Your task to perform on an android device: open sync settings in chrome Image 0: 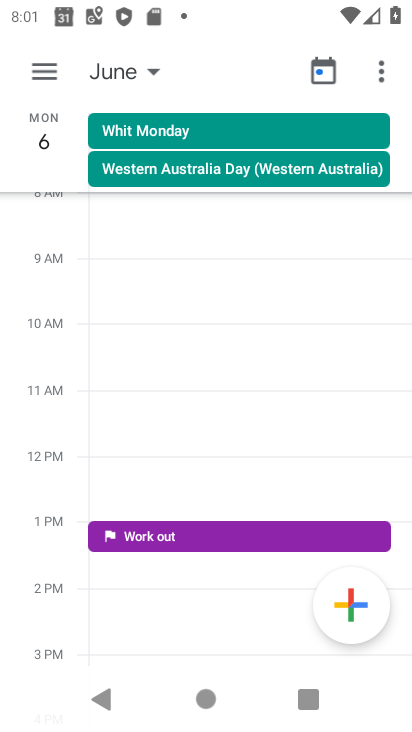
Step 0: press home button
Your task to perform on an android device: open sync settings in chrome Image 1: 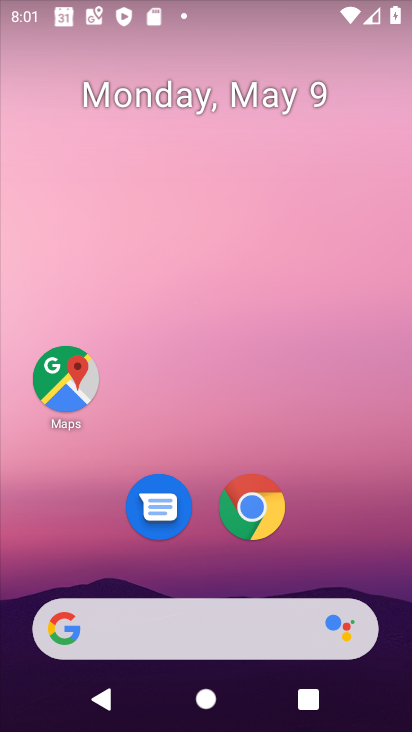
Step 1: drag from (248, 650) to (305, 115)
Your task to perform on an android device: open sync settings in chrome Image 2: 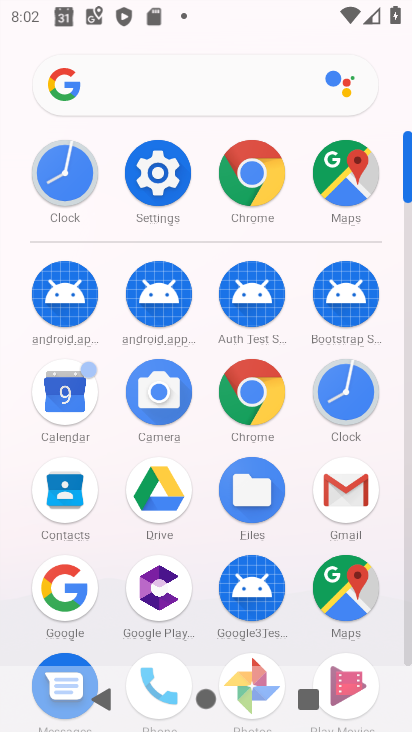
Step 2: click (247, 182)
Your task to perform on an android device: open sync settings in chrome Image 3: 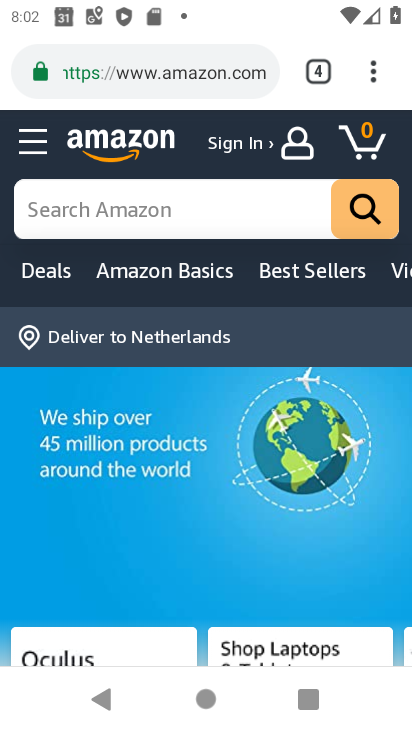
Step 3: click (364, 93)
Your task to perform on an android device: open sync settings in chrome Image 4: 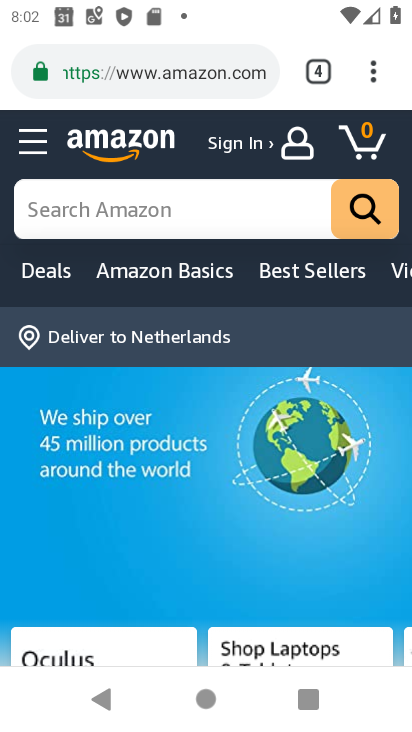
Step 4: click (367, 92)
Your task to perform on an android device: open sync settings in chrome Image 5: 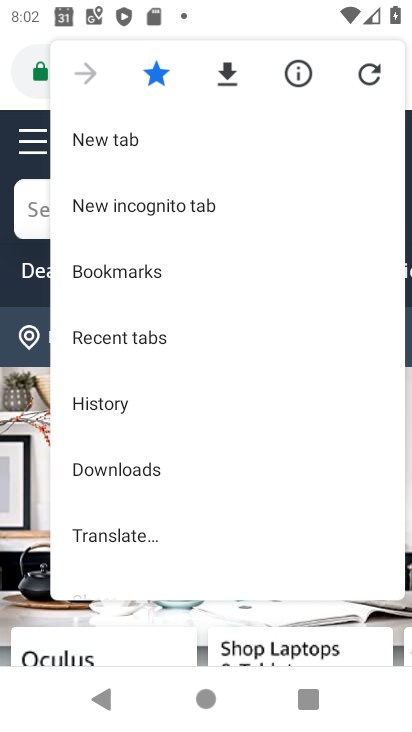
Step 5: drag from (188, 478) to (189, 236)
Your task to perform on an android device: open sync settings in chrome Image 6: 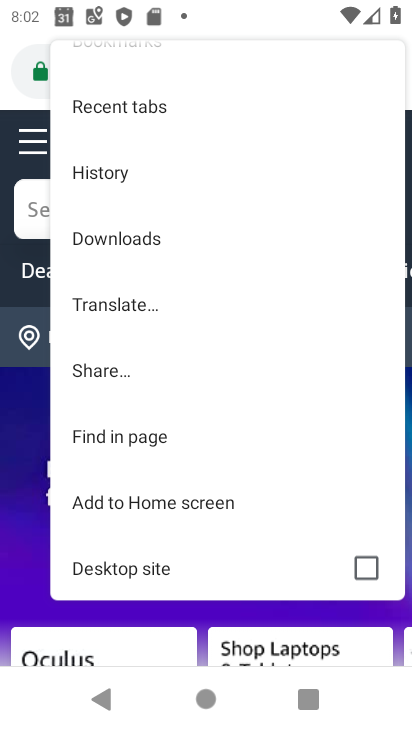
Step 6: drag from (167, 497) to (185, 311)
Your task to perform on an android device: open sync settings in chrome Image 7: 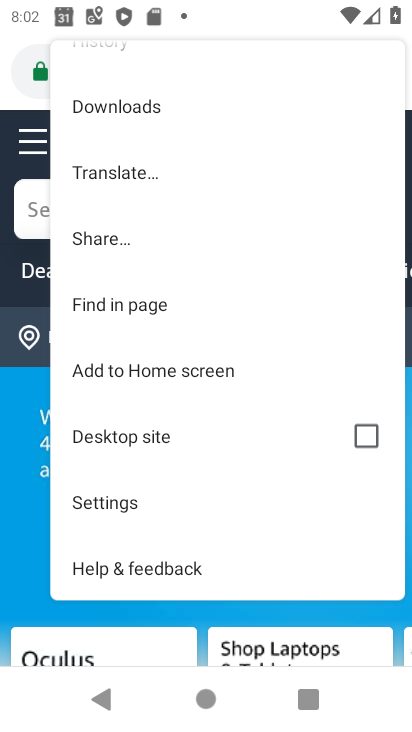
Step 7: click (137, 511)
Your task to perform on an android device: open sync settings in chrome Image 8: 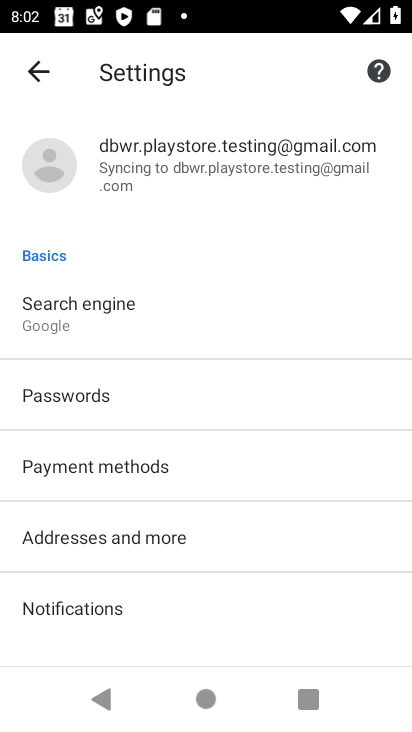
Step 8: drag from (107, 561) to (145, 319)
Your task to perform on an android device: open sync settings in chrome Image 9: 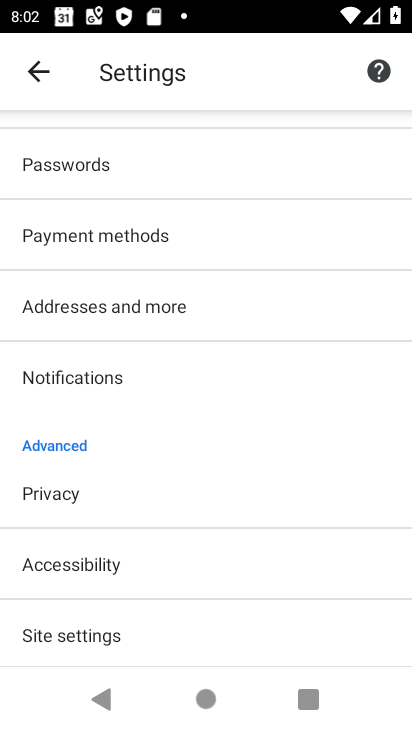
Step 9: click (81, 623)
Your task to perform on an android device: open sync settings in chrome Image 10: 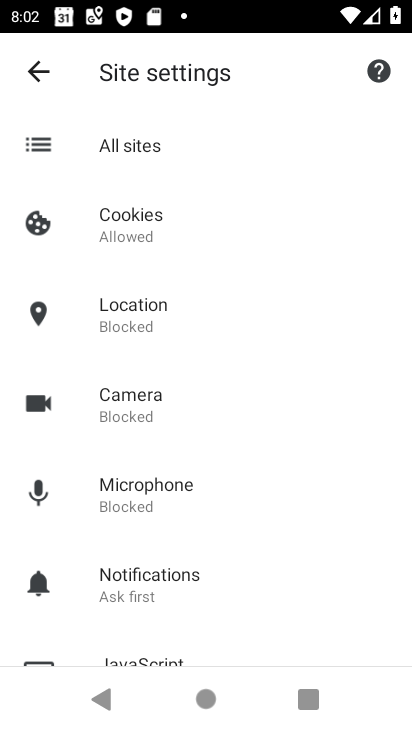
Step 10: drag from (199, 540) to (231, 354)
Your task to perform on an android device: open sync settings in chrome Image 11: 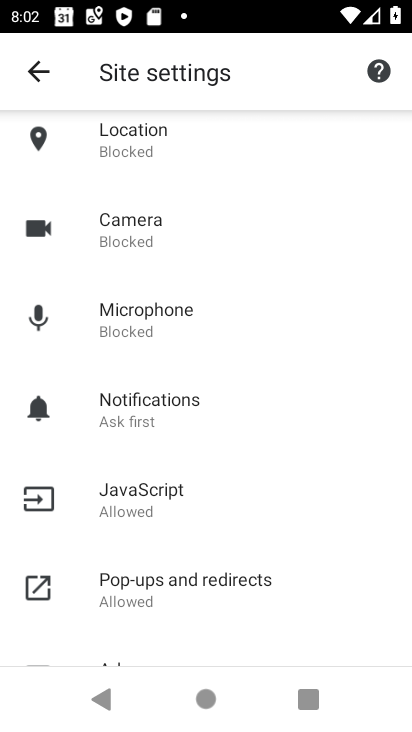
Step 11: drag from (149, 595) to (176, 211)
Your task to perform on an android device: open sync settings in chrome Image 12: 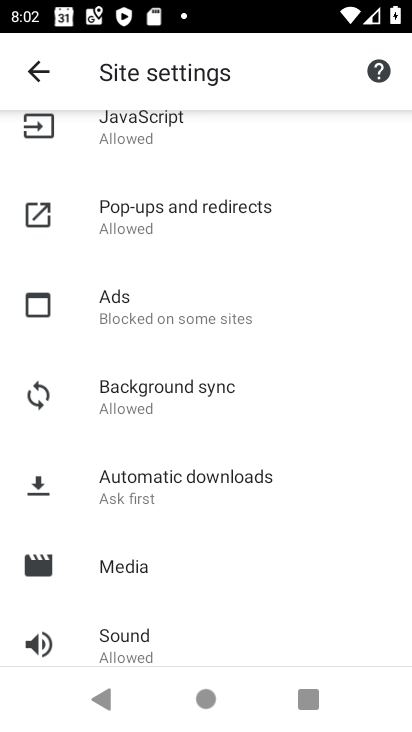
Step 12: drag from (126, 603) to (237, 387)
Your task to perform on an android device: open sync settings in chrome Image 13: 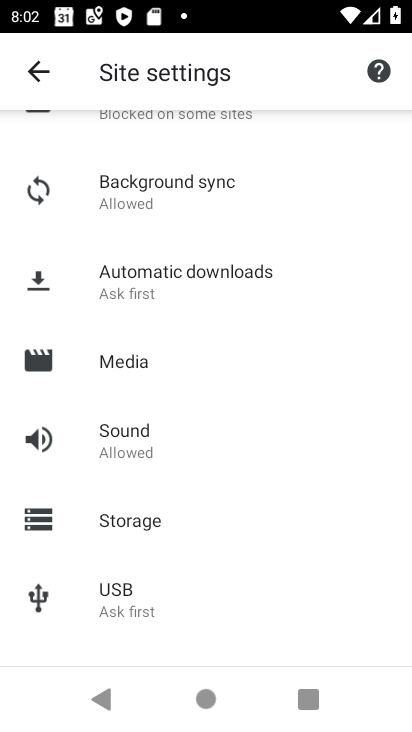
Step 13: drag from (172, 605) to (226, 441)
Your task to perform on an android device: open sync settings in chrome Image 14: 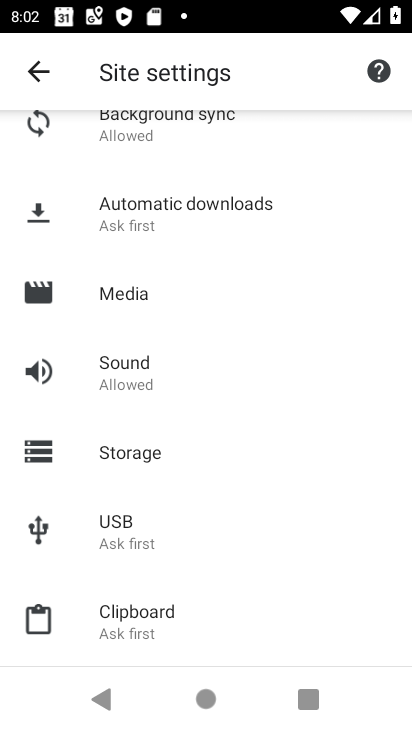
Step 14: click (196, 135)
Your task to perform on an android device: open sync settings in chrome Image 15: 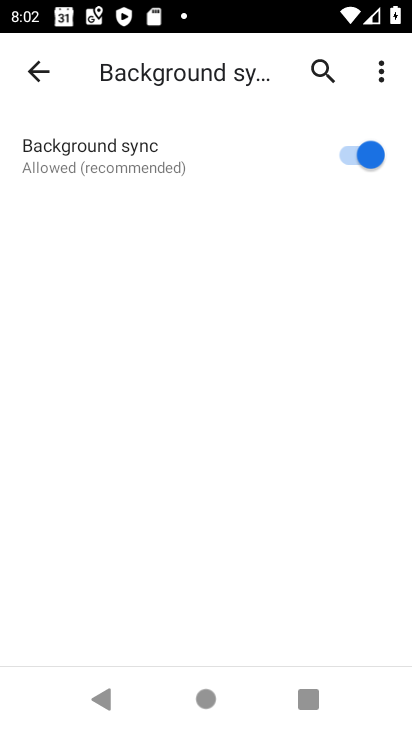
Step 15: task complete